Your task to perform on an android device: Clear the cart on bestbuy. Search for "alienware aurora" on bestbuy, select the first entry, and add it to the cart. Image 0: 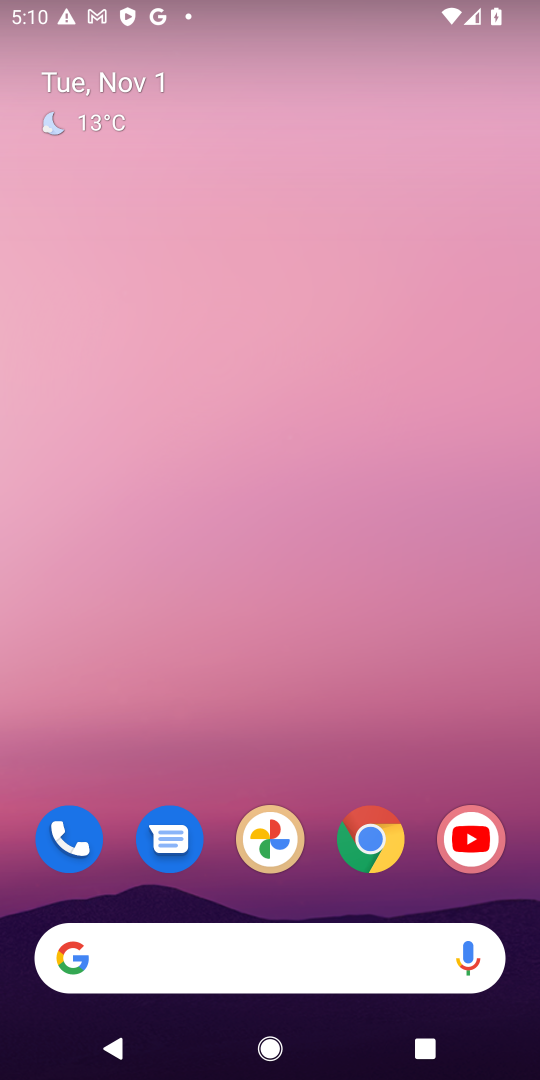
Step 0: drag from (324, 838) to (285, 202)
Your task to perform on an android device: Clear the cart on bestbuy. Search for "alienware aurora" on bestbuy, select the first entry, and add it to the cart. Image 1: 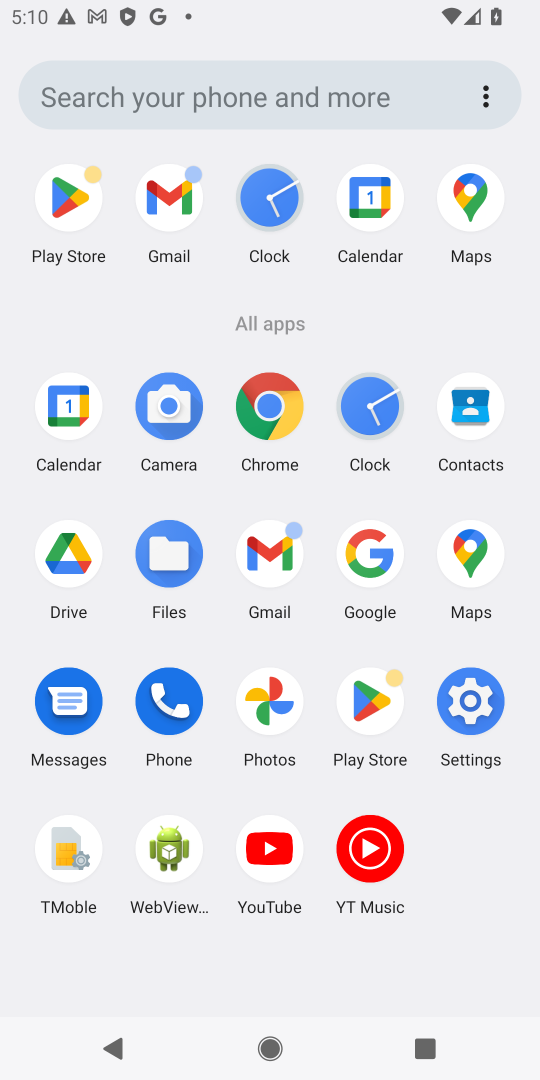
Step 1: click (272, 405)
Your task to perform on an android device: Clear the cart on bestbuy. Search for "alienware aurora" on bestbuy, select the first entry, and add it to the cart. Image 2: 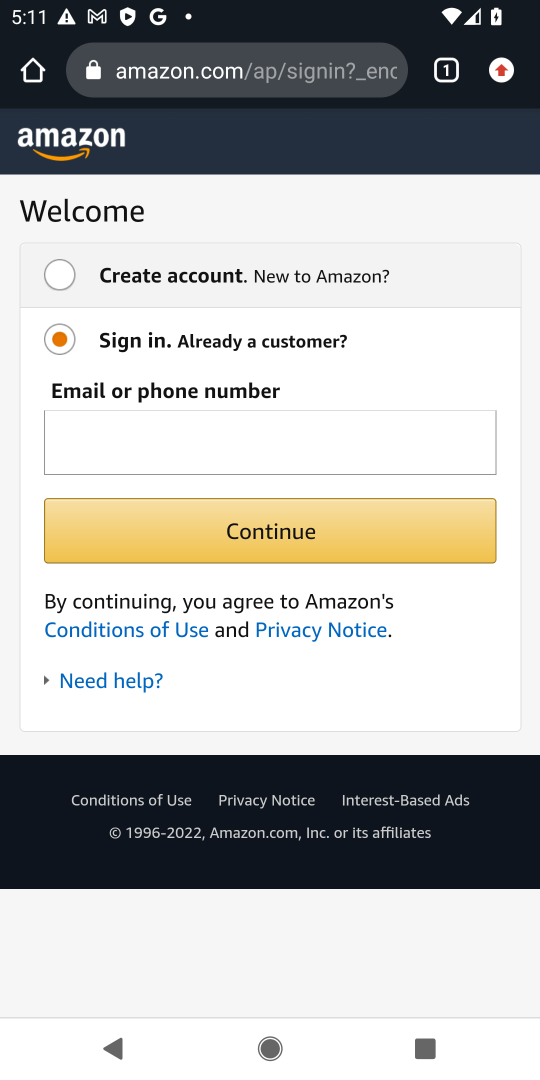
Step 2: click (304, 73)
Your task to perform on an android device: Clear the cart on bestbuy. Search for "alienware aurora" on bestbuy, select the first entry, and add it to the cart. Image 3: 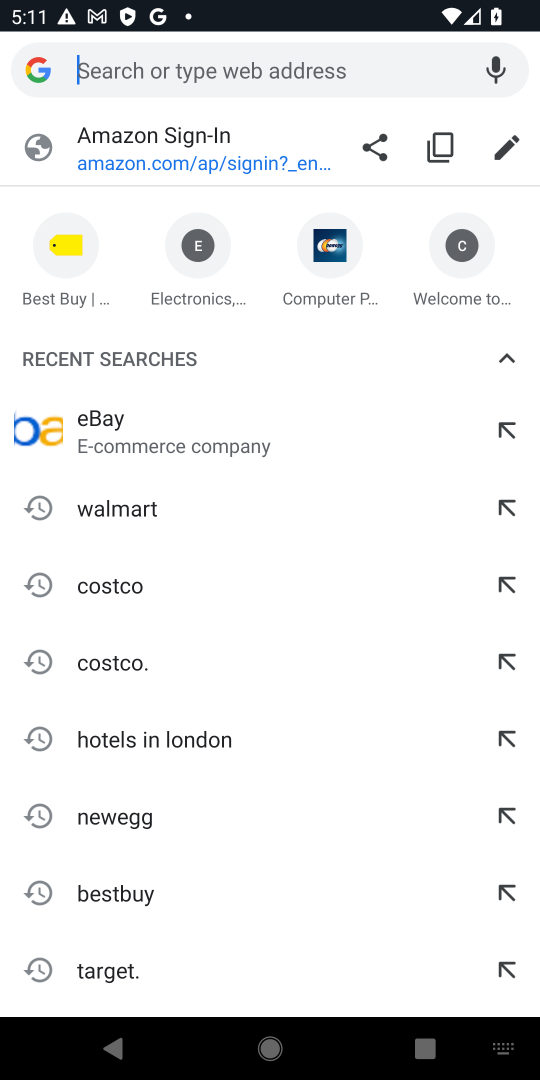
Step 3: type "bestbuy.com"
Your task to perform on an android device: Clear the cart on bestbuy. Search for "alienware aurora" on bestbuy, select the first entry, and add it to the cart. Image 4: 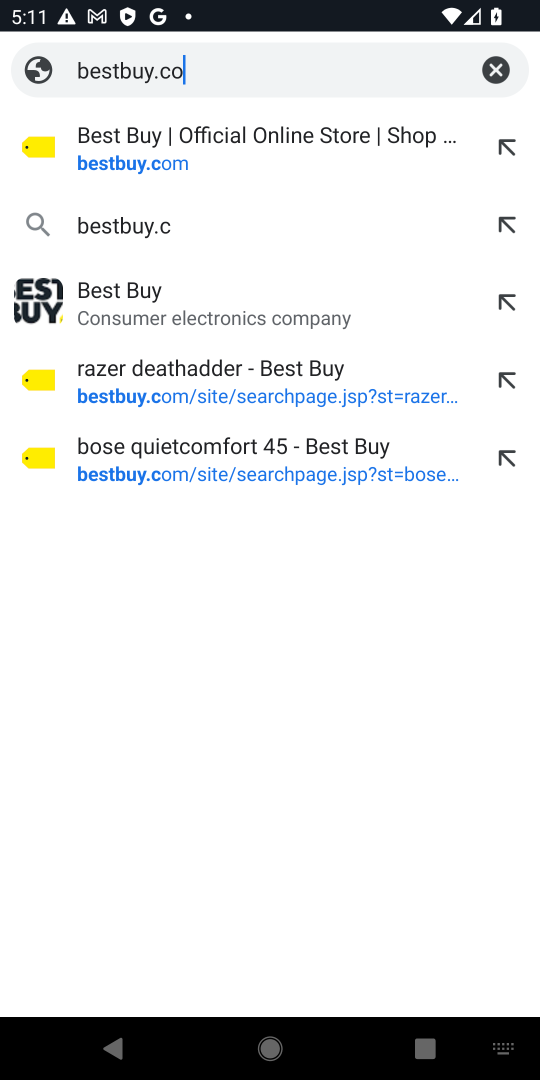
Step 4: press enter
Your task to perform on an android device: Clear the cart on bestbuy. Search for "alienware aurora" on bestbuy, select the first entry, and add it to the cart. Image 5: 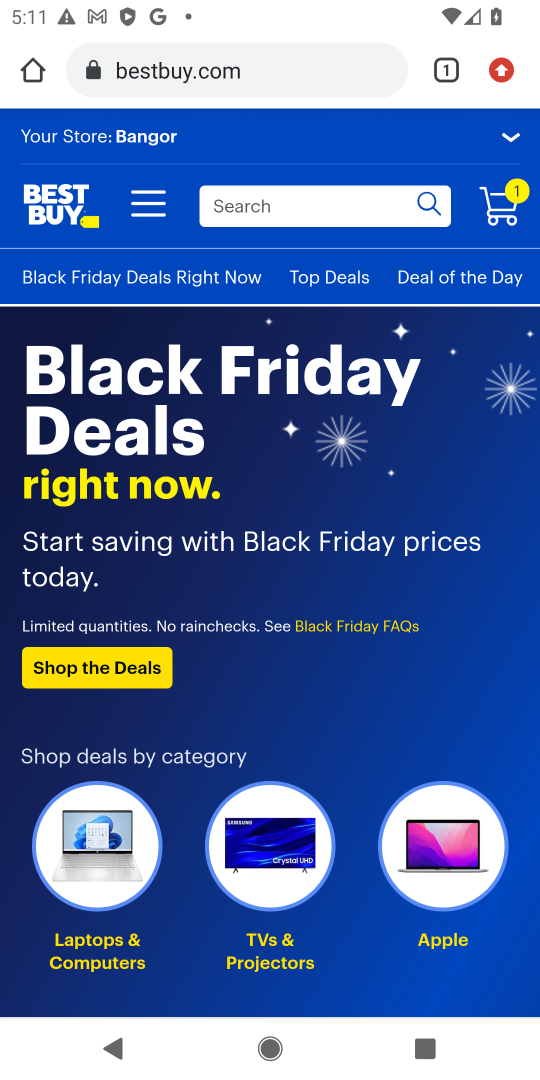
Step 5: click (374, 201)
Your task to perform on an android device: Clear the cart on bestbuy. Search for "alienware aurora" on bestbuy, select the first entry, and add it to the cart. Image 6: 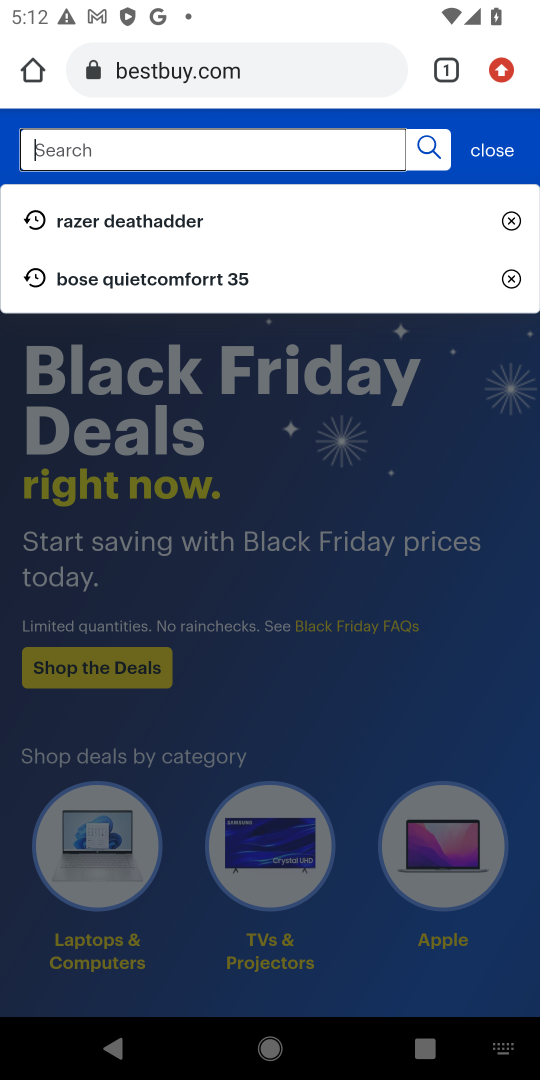
Step 6: type "alienware aurora"
Your task to perform on an android device: Clear the cart on bestbuy. Search for "alienware aurora" on bestbuy, select the first entry, and add it to the cart. Image 7: 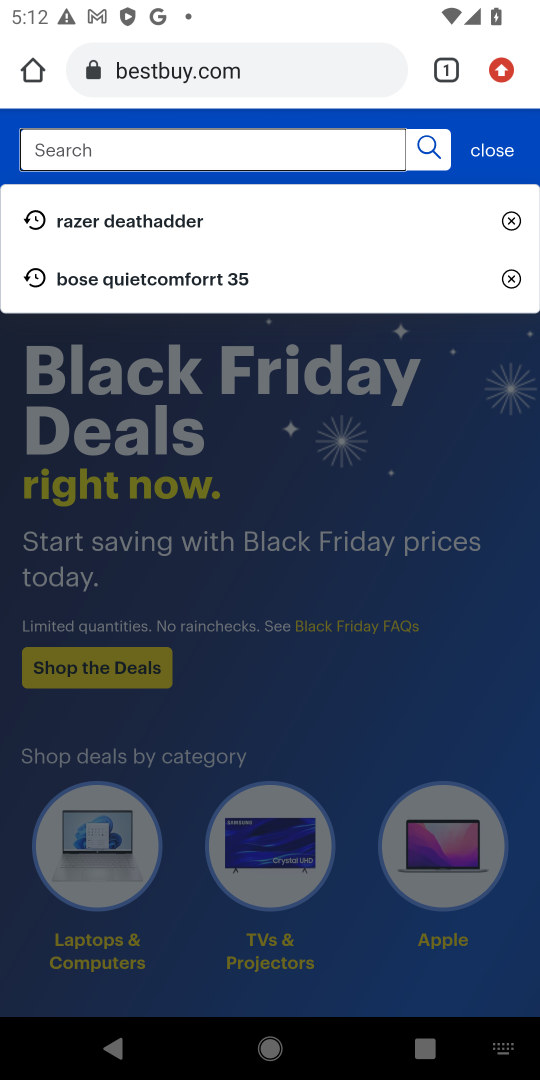
Step 7: click (500, 168)
Your task to perform on an android device: Clear the cart on bestbuy. Search for "alienware aurora" on bestbuy, select the first entry, and add it to the cart. Image 8: 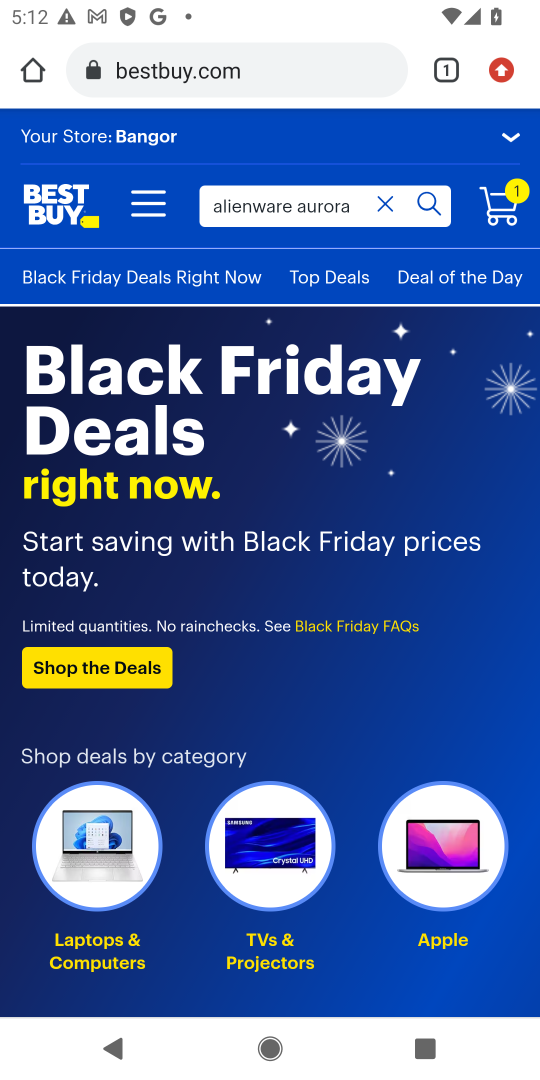
Step 8: click (493, 162)
Your task to perform on an android device: Clear the cart on bestbuy. Search for "alienware aurora" on bestbuy, select the first entry, and add it to the cart. Image 9: 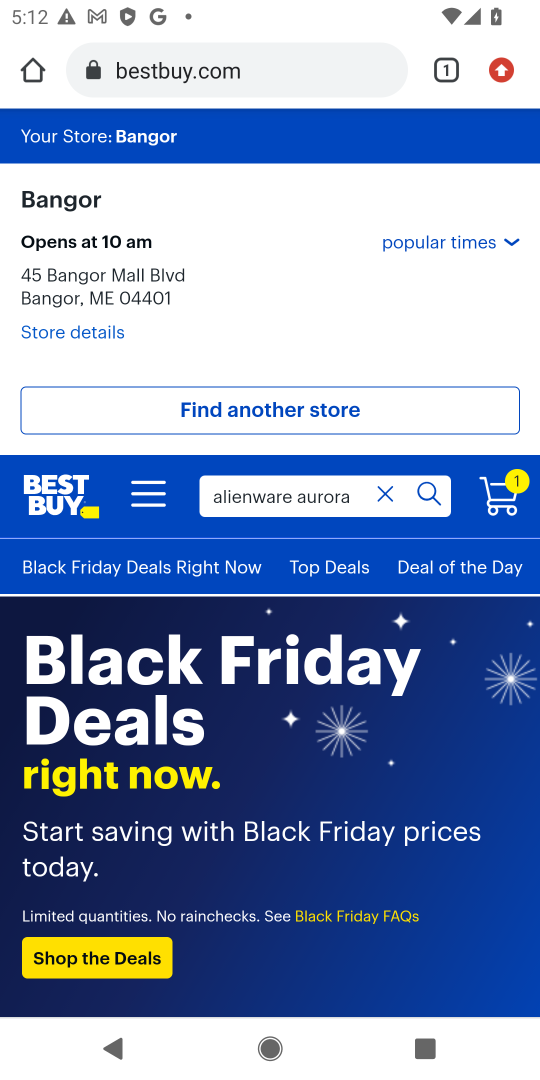
Step 9: click (486, 195)
Your task to perform on an android device: Clear the cart on bestbuy. Search for "alienware aurora" on bestbuy, select the first entry, and add it to the cart. Image 10: 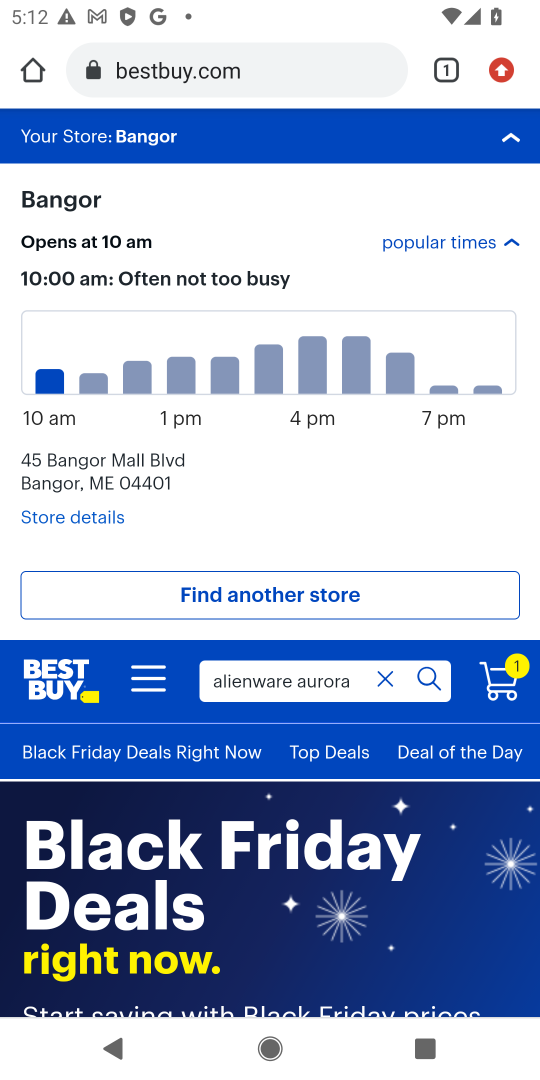
Step 10: click (500, 678)
Your task to perform on an android device: Clear the cart on bestbuy. Search for "alienware aurora" on bestbuy, select the first entry, and add it to the cart. Image 11: 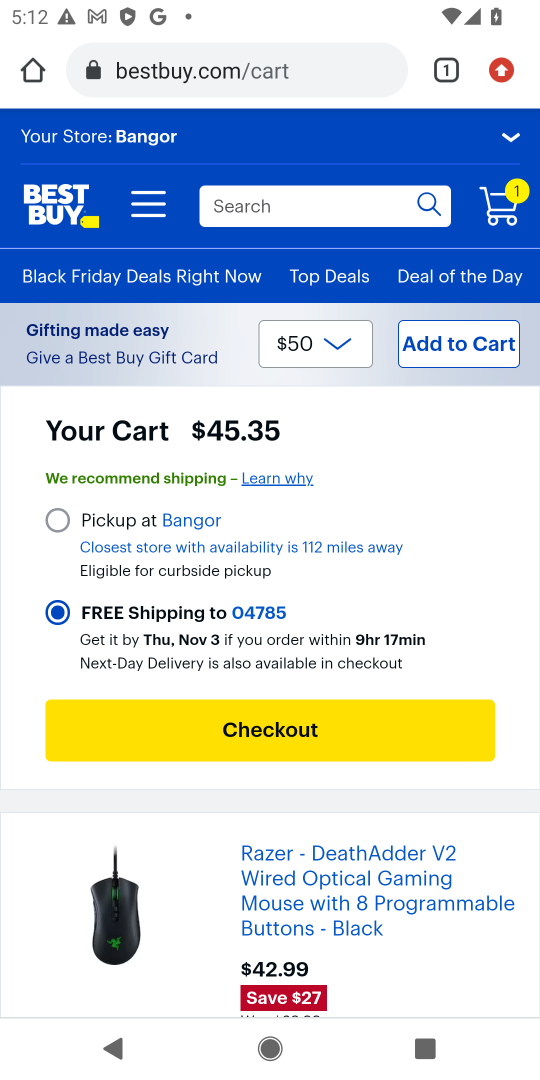
Step 11: drag from (352, 893) to (443, 307)
Your task to perform on an android device: Clear the cart on bestbuy. Search for "alienware aurora" on bestbuy, select the first entry, and add it to the cart. Image 12: 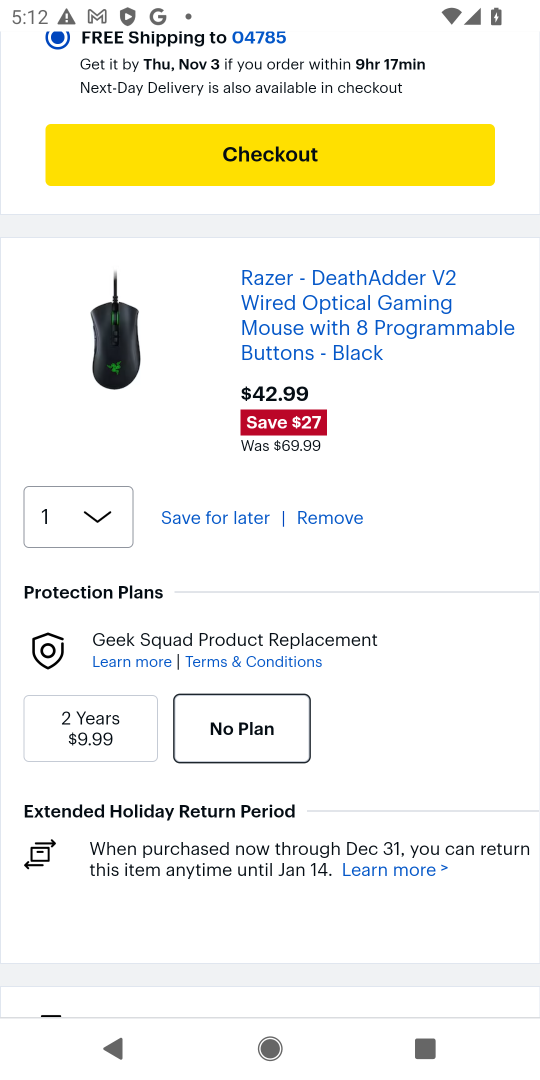
Step 12: click (339, 505)
Your task to perform on an android device: Clear the cart on bestbuy. Search for "alienware aurora" on bestbuy, select the first entry, and add it to the cart. Image 13: 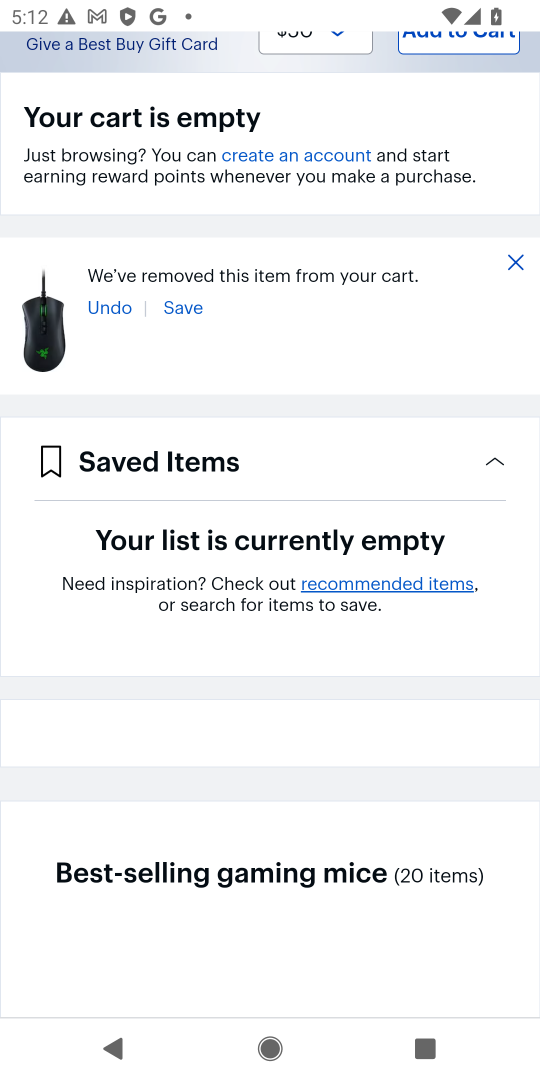
Step 13: drag from (405, 193) to (303, 855)
Your task to perform on an android device: Clear the cart on bestbuy. Search for "alienware aurora" on bestbuy, select the first entry, and add it to the cart. Image 14: 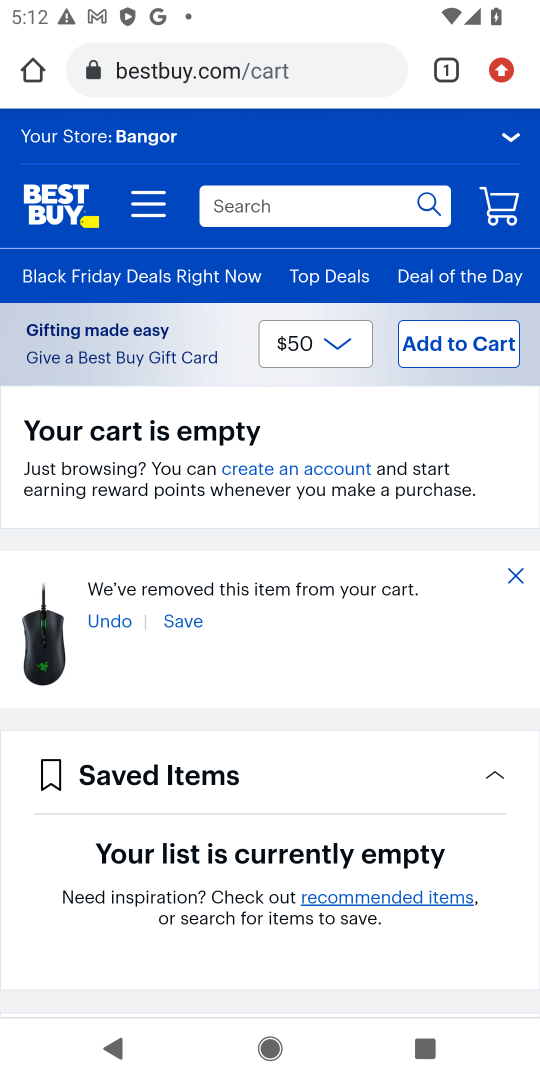
Step 14: click (358, 200)
Your task to perform on an android device: Clear the cart on bestbuy. Search for "alienware aurora" on bestbuy, select the first entry, and add it to the cart. Image 15: 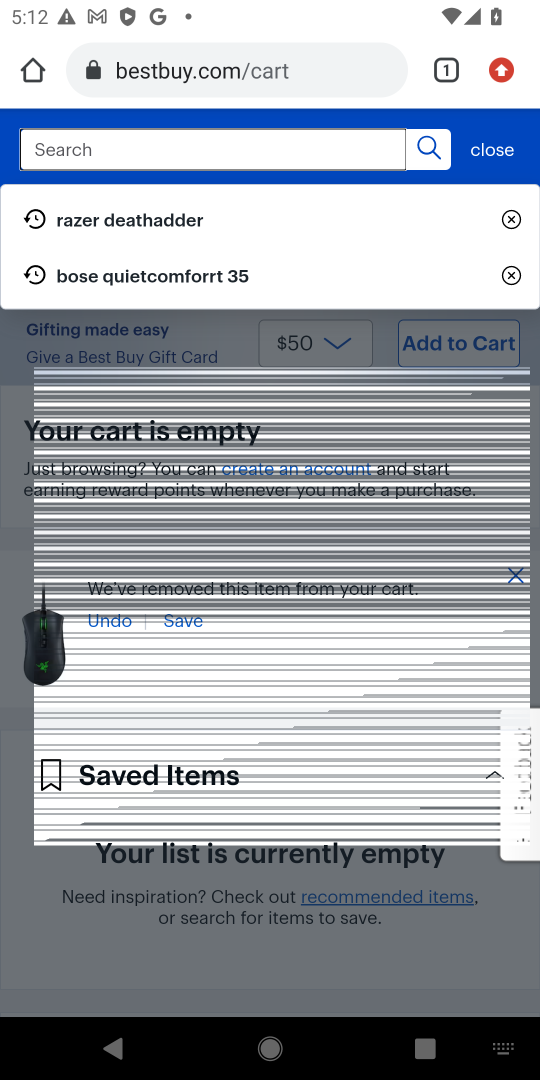
Step 15: type "alienware aurora"
Your task to perform on an android device: Clear the cart on bestbuy. Search for "alienware aurora" on bestbuy, select the first entry, and add it to the cart. Image 16: 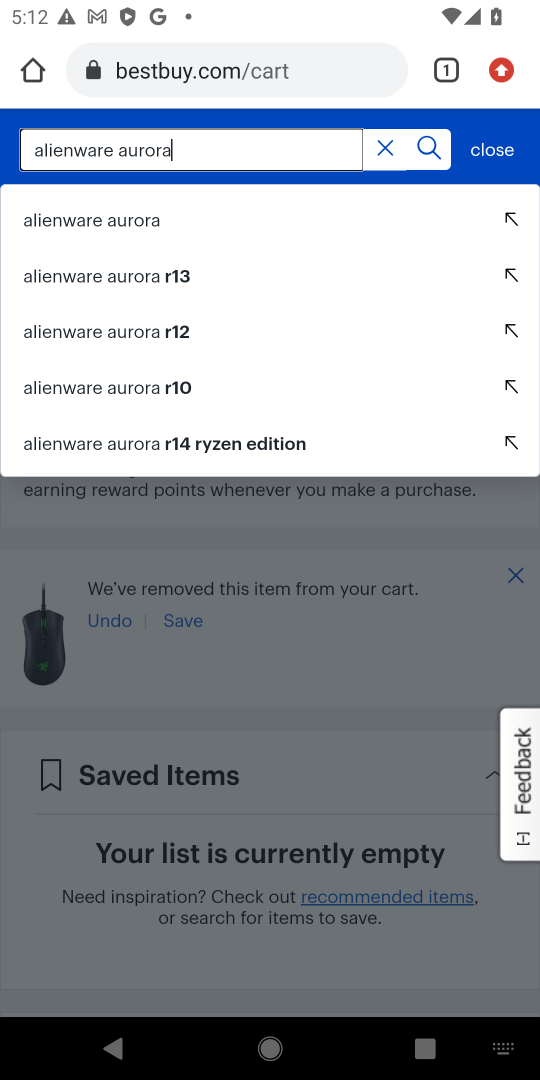
Step 16: press enter
Your task to perform on an android device: Clear the cart on bestbuy. Search for "alienware aurora" on bestbuy, select the first entry, and add it to the cart. Image 17: 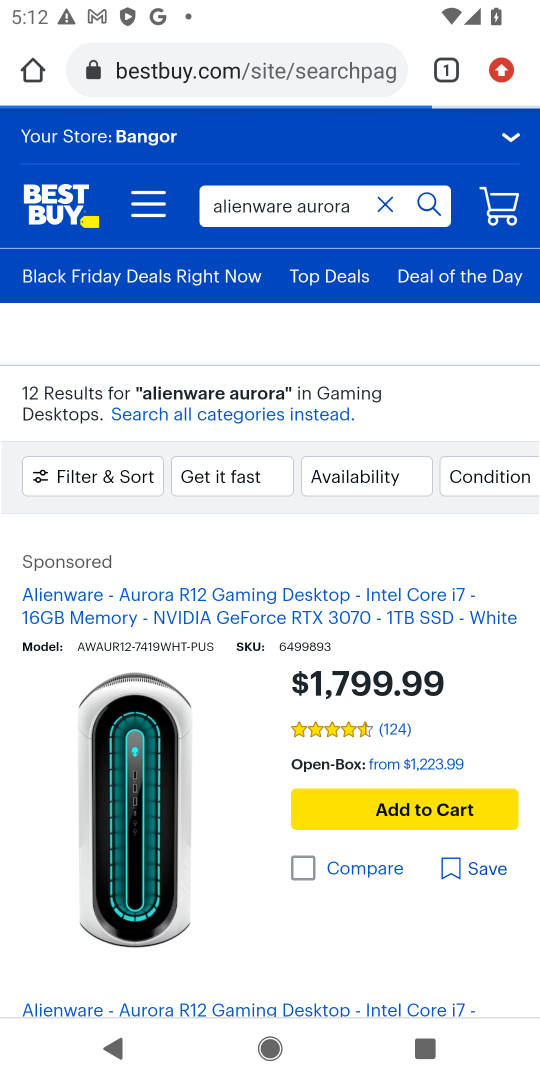
Step 17: drag from (235, 851) to (356, 182)
Your task to perform on an android device: Clear the cart on bestbuy. Search for "alienware aurora" on bestbuy, select the first entry, and add it to the cart. Image 18: 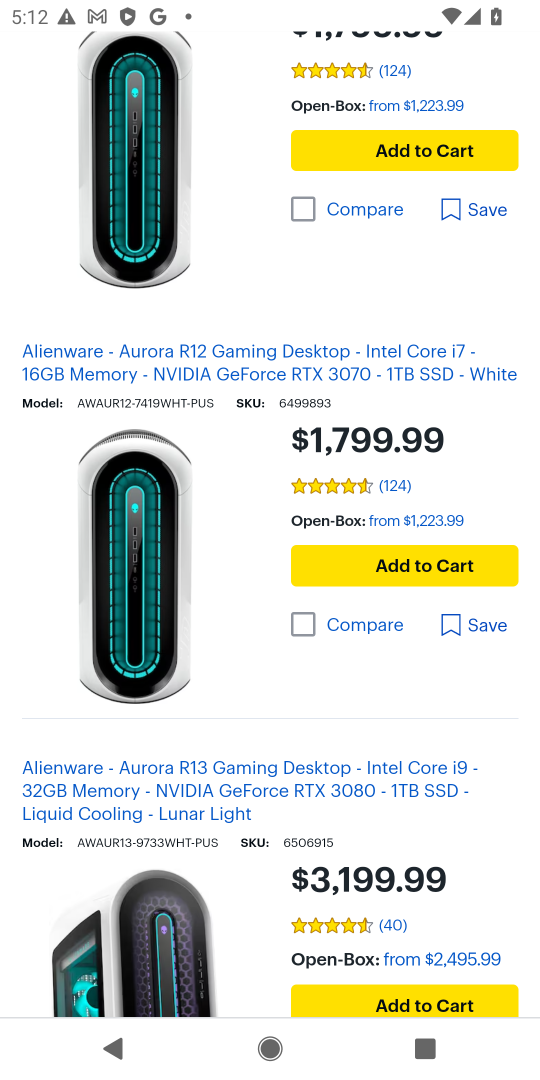
Step 18: click (384, 451)
Your task to perform on an android device: Clear the cart on bestbuy. Search for "alienware aurora" on bestbuy, select the first entry, and add it to the cart. Image 19: 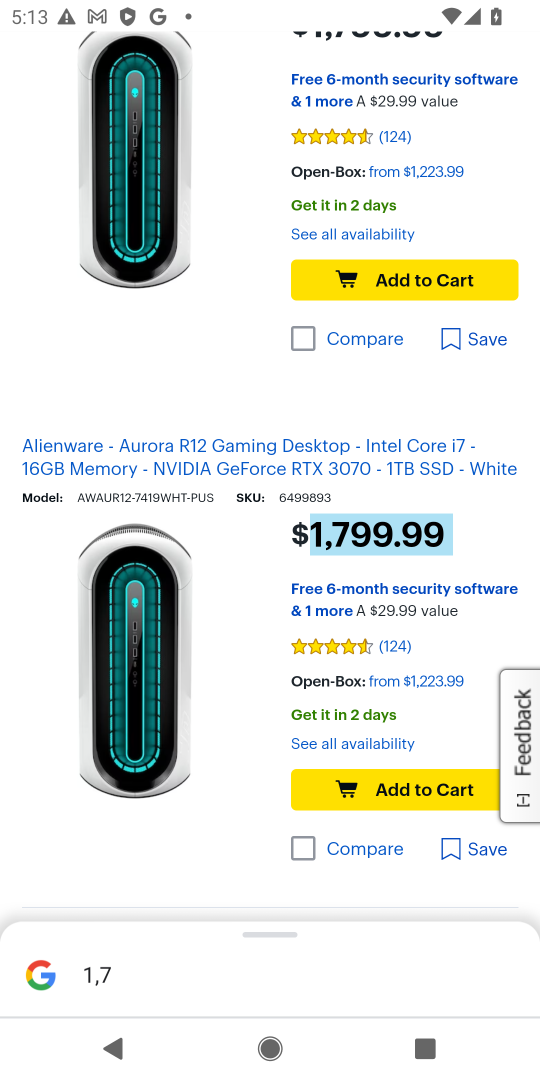
Step 19: click (410, 788)
Your task to perform on an android device: Clear the cart on bestbuy. Search for "alienware aurora" on bestbuy, select the first entry, and add it to the cart. Image 20: 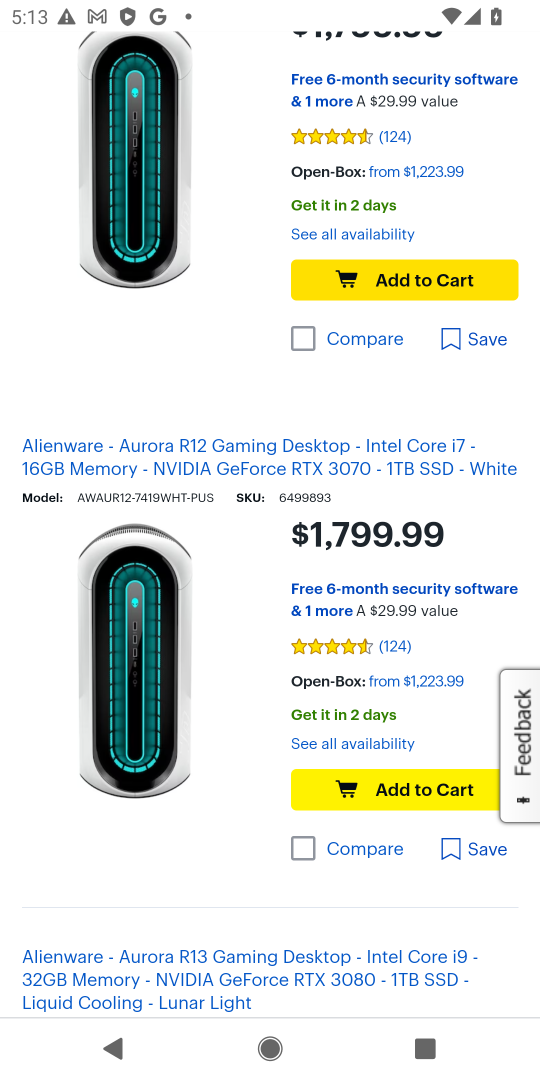
Step 20: click (372, 797)
Your task to perform on an android device: Clear the cart on bestbuy. Search for "alienware aurora" on bestbuy, select the first entry, and add it to the cart. Image 21: 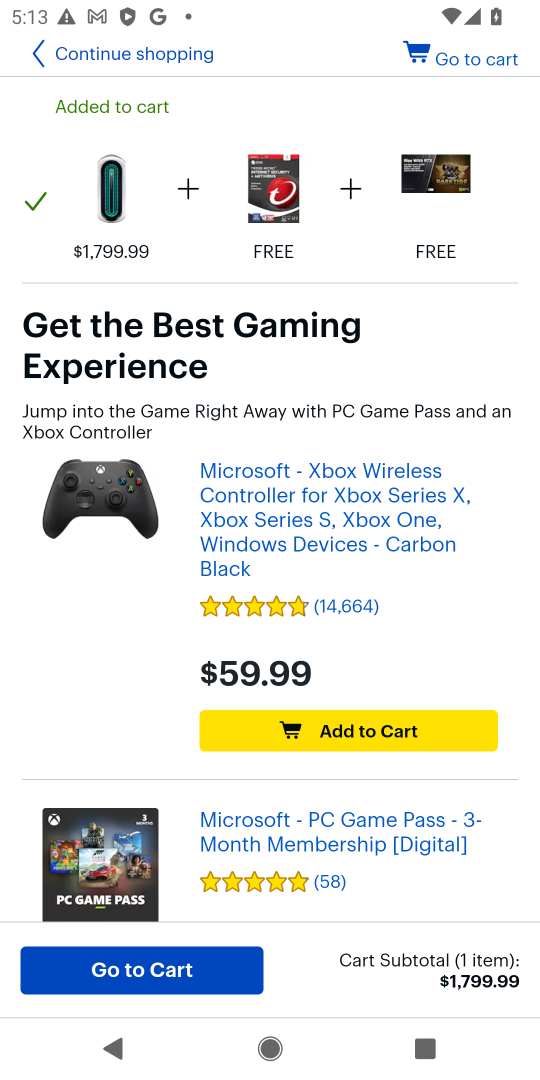
Step 21: task complete